Your task to perform on an android device: Open battery settings Image 0: 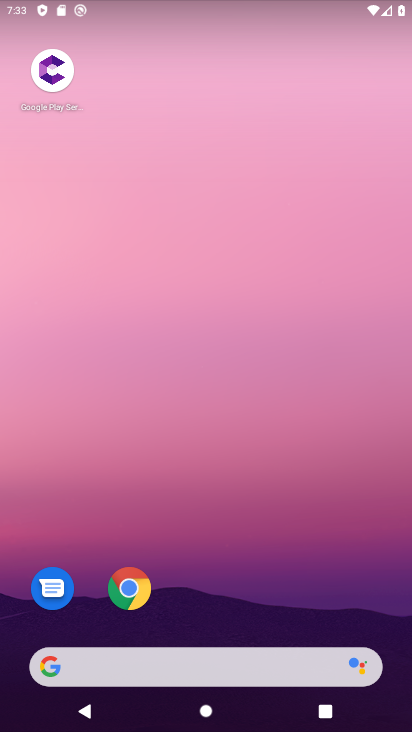
Step 0: drag from (187, 648) to (153, 21)
Your task to perform on an android device: Open battery settings Image 1: 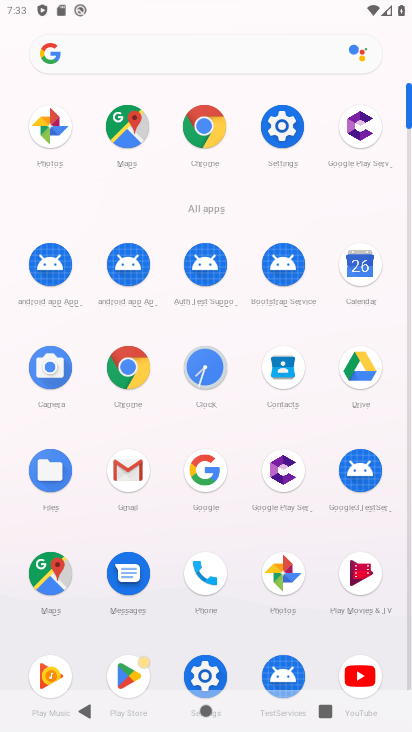
Step 1: click (271, 118)
Your task to perform on an android device: Open battery settings Image 2: 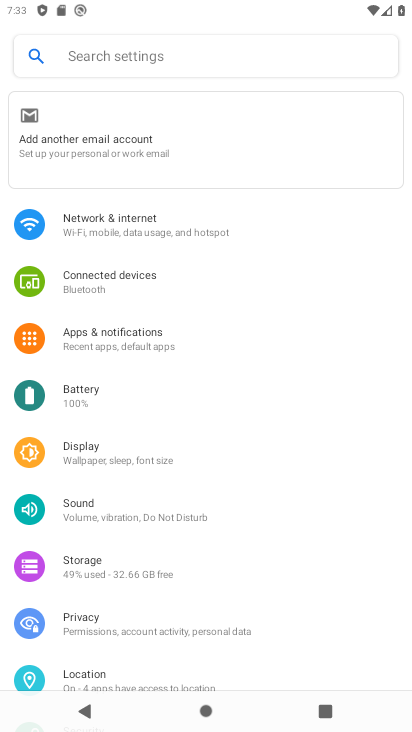
Step 2: click (80, 386)
Your task to perform on an android device: Open battery settings Image 3: 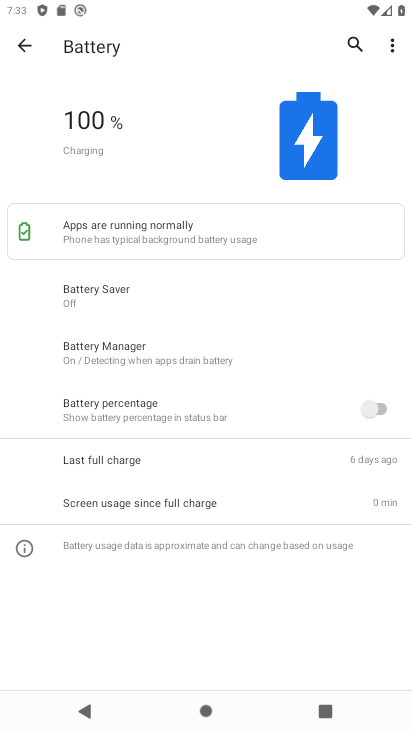
Step 3: task complete